Your task to perform on an android device: turn off priority inbox in the gmail app Image 0: 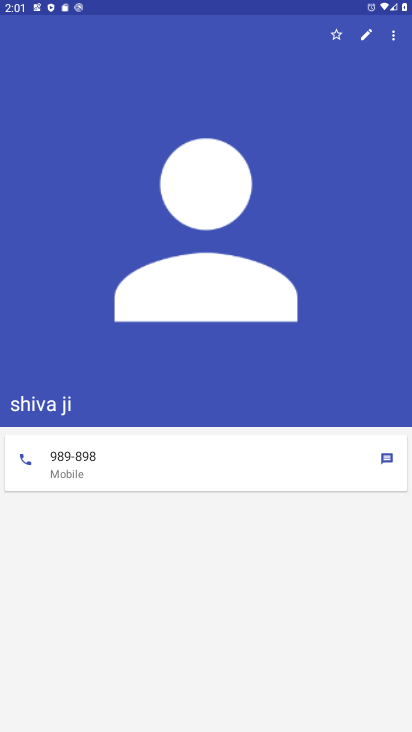
Step 0: press home button
Your task to perform on an android device: turn off priority inbox in the gmail app Image 1: 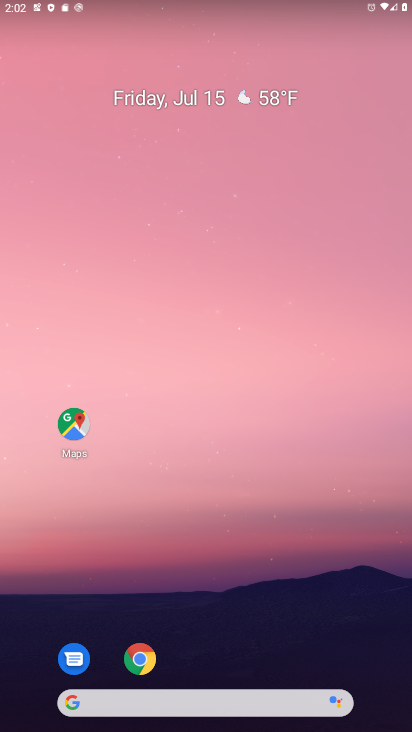
Step 1: drag from (223, 729) to (195, 94)
Your task to perform on an android device: turn off priority inbox in the gmail app Image 2: 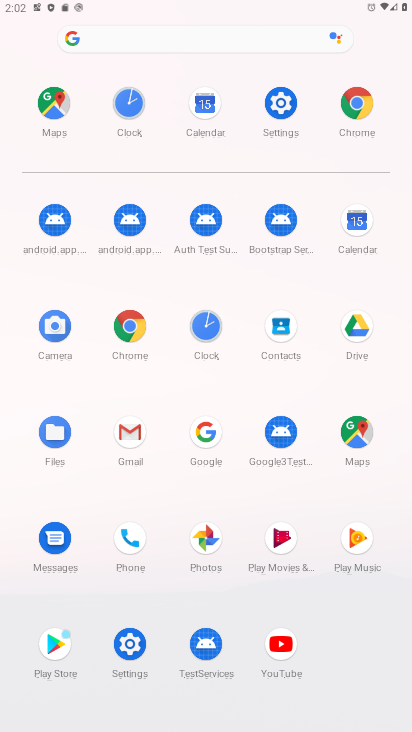
Step 2: click (131, 442)
Your task to perform on an android device: turn off priority inbox in the gmail app Image 3: 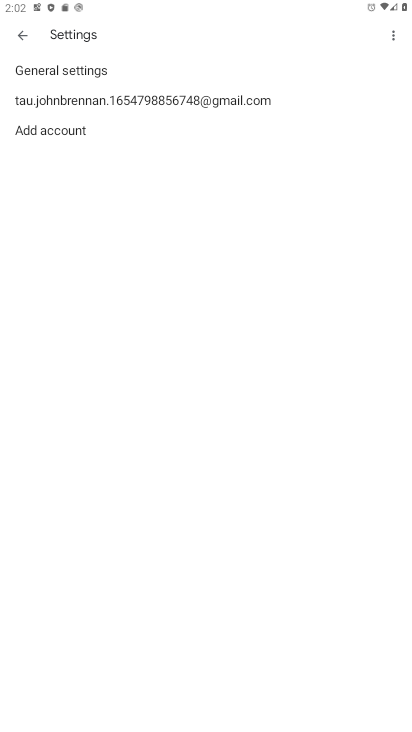
Step 3: click (65, 97)
Your task to perform on an android device: turn off priority inbox in the gmail app Image 4: 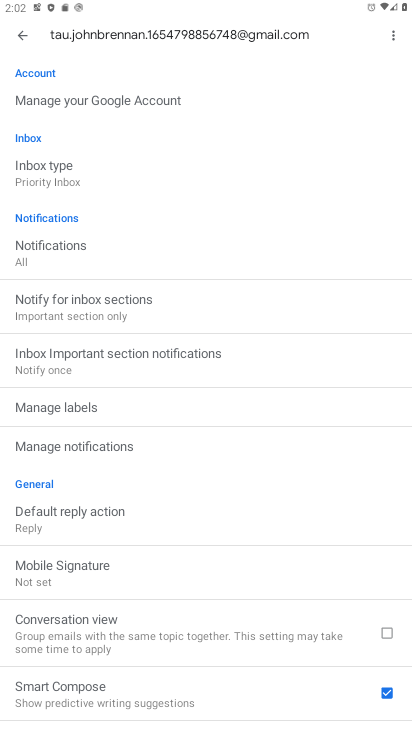
Step 4: click (49, 169)
Your task to perform on an android device: turn off priority inbox in the gmail app Image 5: 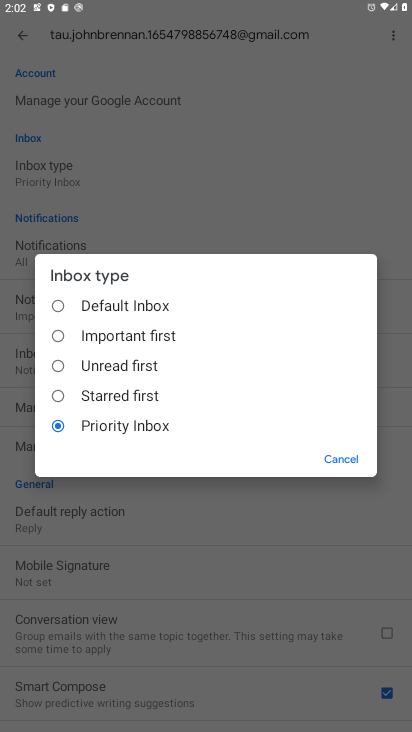
Step 5: click (56, 304)
Your task to perform on an android device: turn off priority inbox in the gmail app Image 6: 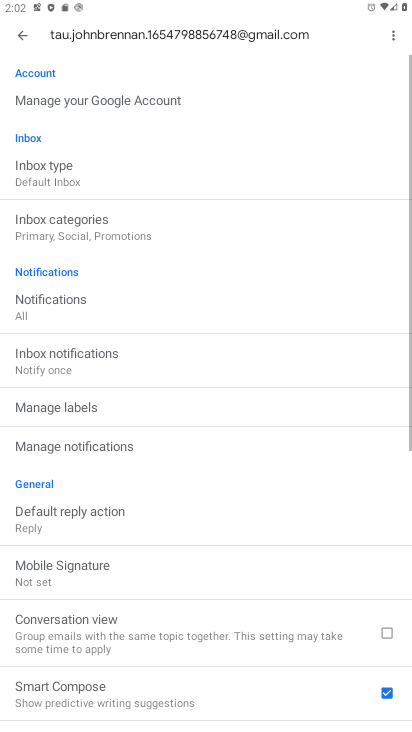
Step 6: task complete